Your task to perform on an android device: Go to Google Image 0: 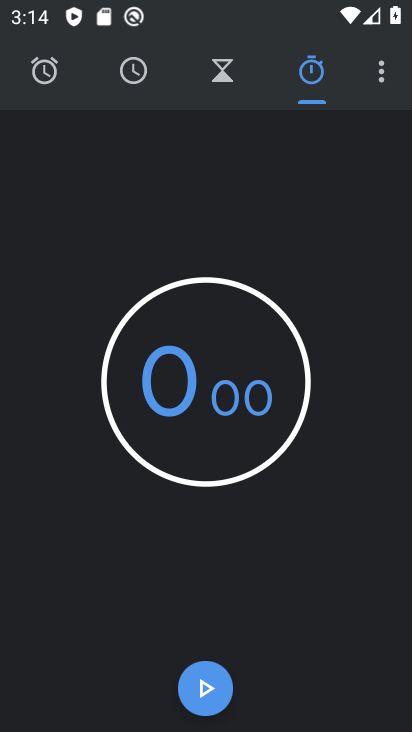
Step 0: press home button
Your task to perform on an android device: Go to Google Image 1: 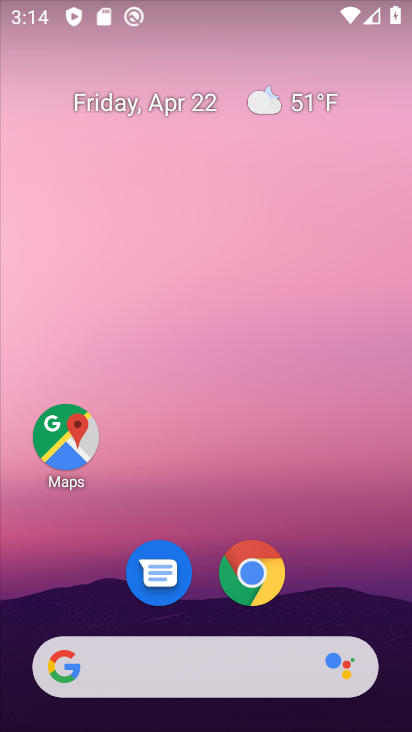
Step 1: drag from (315, 510) to (317, 34)
Your task to perform on an android device: Go to Google Image 2: 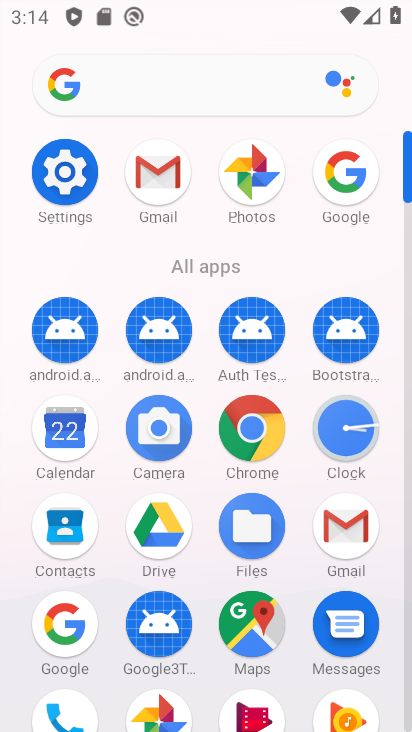
Step 2: click (344, 179)
Your task to perform on an android device: Go to Google Image 3: 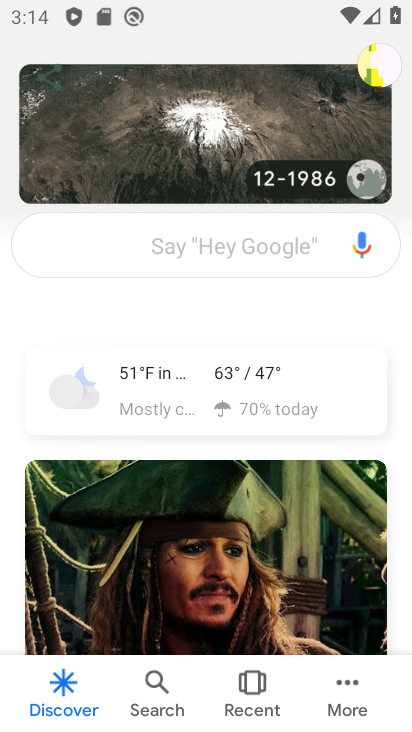
Step 3: task complete